Your task to perform on an android device: see creations saved in the google photos Image 0: 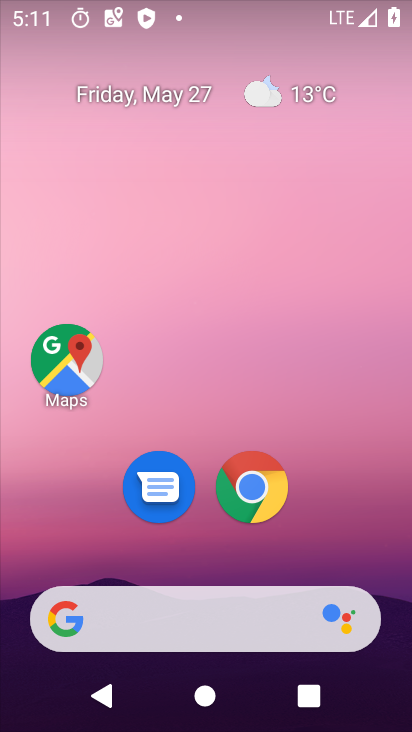
Step 0: drag from (346, 212) to (348, 116)
Your task to perform on an android device: see creations saved in the google photos Image 1: 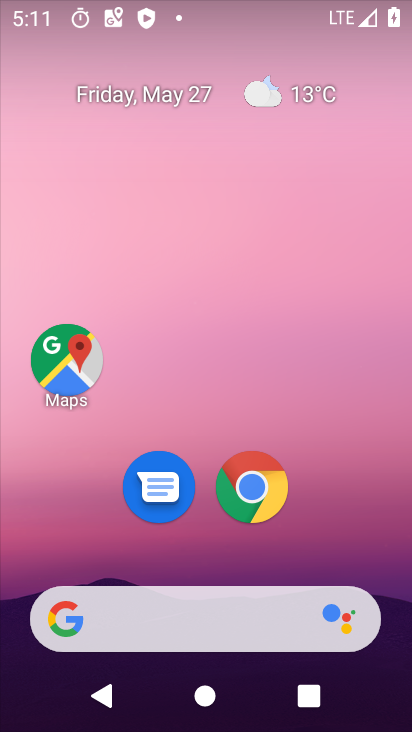
Step 1: drag from (327, 433) to (330, 81)
Your task to perform on an android device: see creations saved in the google photos Image 2: 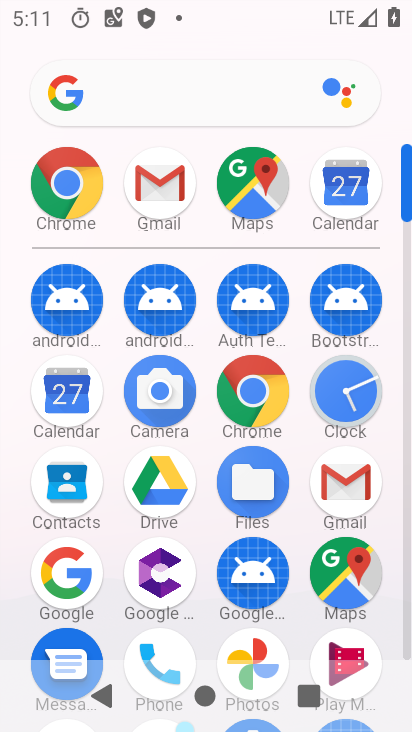
Step 2: click (263, 661)
Your task to perform on an android device: see creations saved in the google photos Image 3: 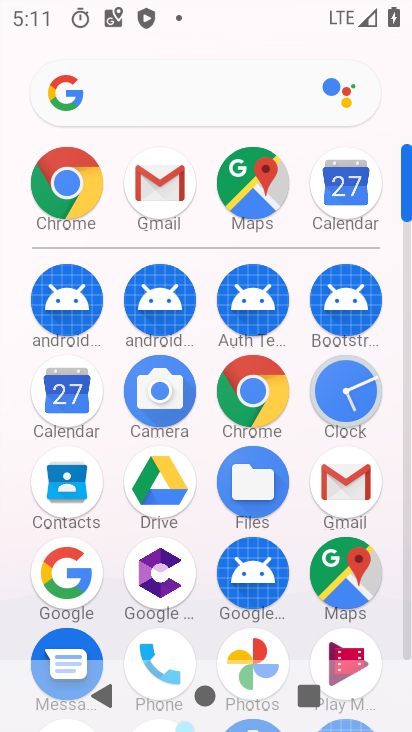
Step 3: drag from (291, 610) to (293, 253)
Your task to perform on an android device: see creations saved in the google photos Image 4: 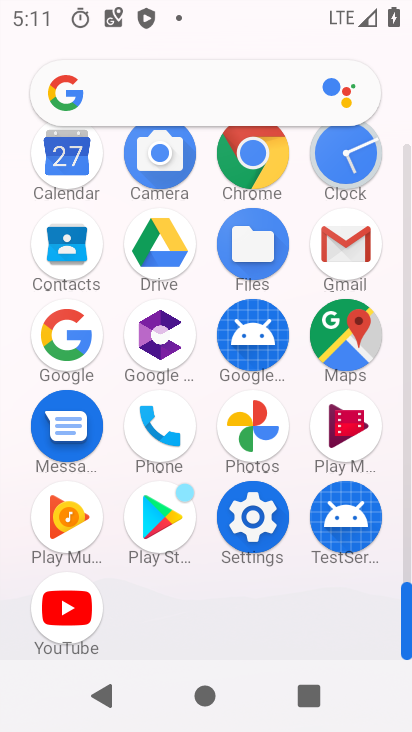
Step 4: click (266, 436)
Your task to perform on an android device: see creations saved in the google photos Image 5: 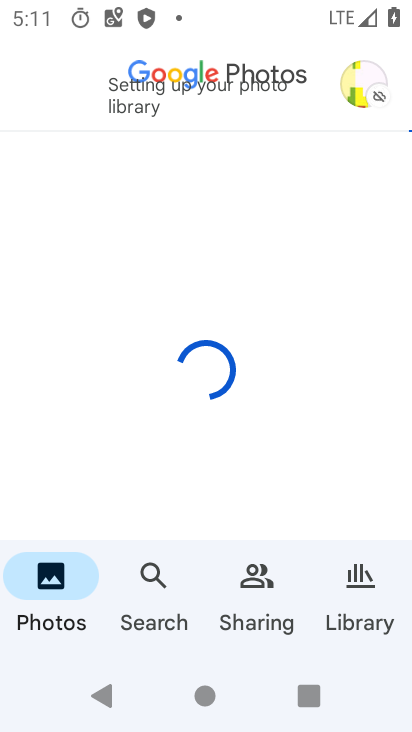
Step 5: click (332, 619)
Your task to perform on an android device: see creations saved in the google photos Image 6: 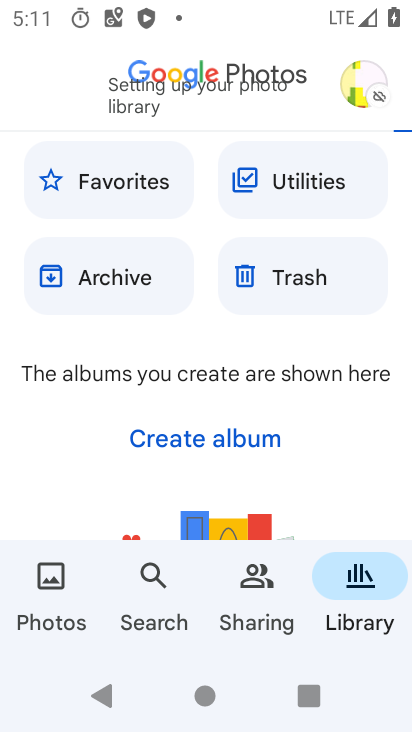
Step 6: click (263, 596)
Your task to perform on an android device: see creations saved in the google photos Image 7: 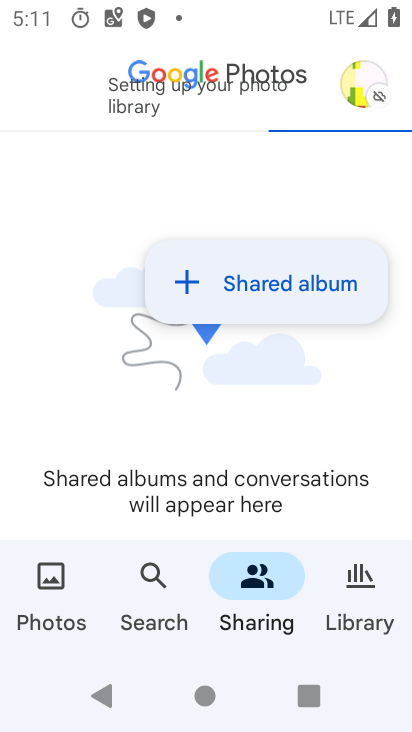
Step 7: click (337, 590)
Your task to perform on an android device: see creations saved in the google photos Image 8: 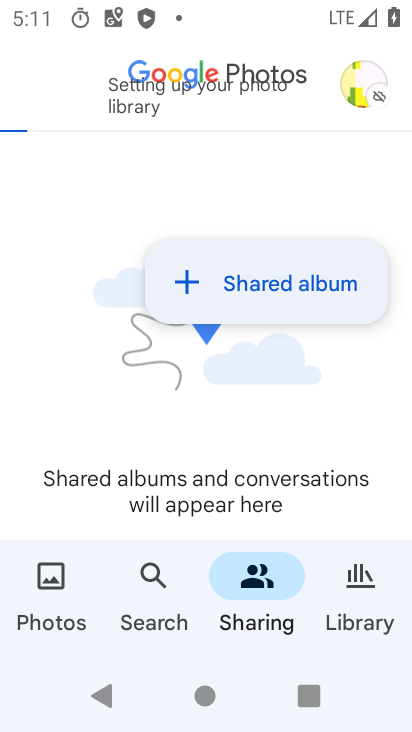
Step 8: click (337, 590)
Your task to perform on an android device: see creations saved in the google photos Image 9: 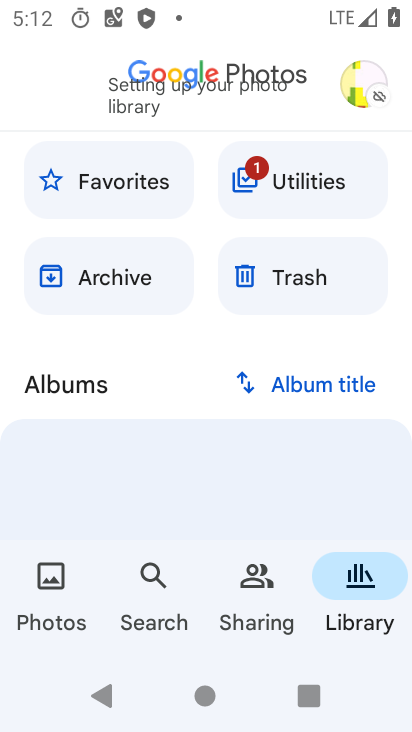
Step 9: task complete